Your task to perform on an android device: uninstall "Facebook Messenger" Image 0: 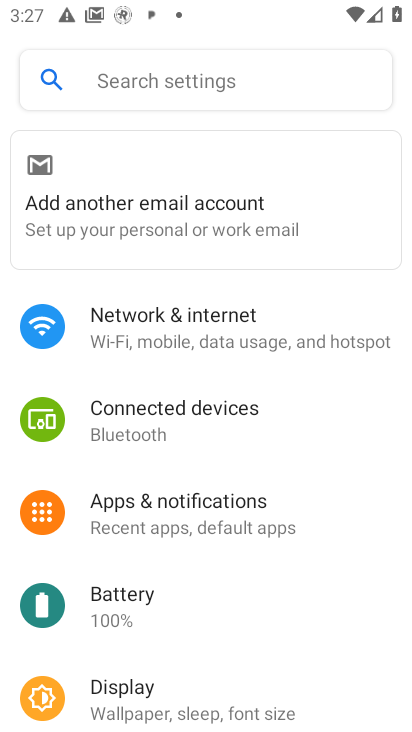
Step 0: press home button
Your task to perform on an android device: uninstall "Facebook Messenger" Image 1: 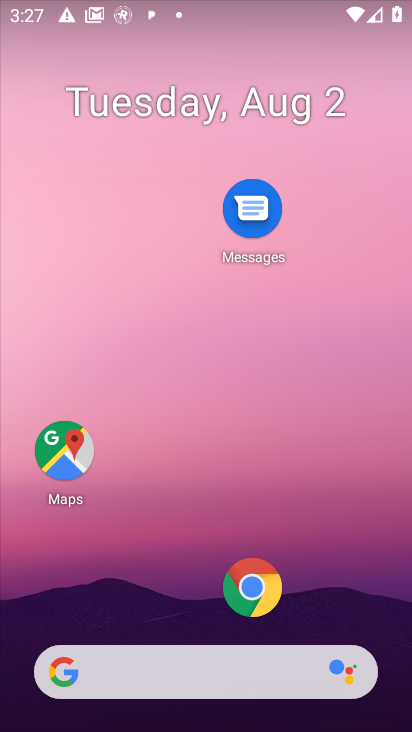
Step 1: drag from (175, 513) to (153, 203)
Your task to perform on an android device: uninstall "Facebook Messenger" Image 2: 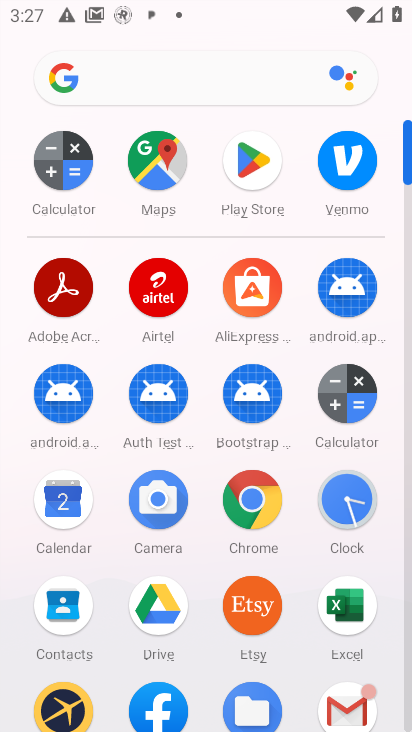
Step 2: click (269, 149)
Your task to perform on an android device: uninstall "Facebook Messenger" Image 3: 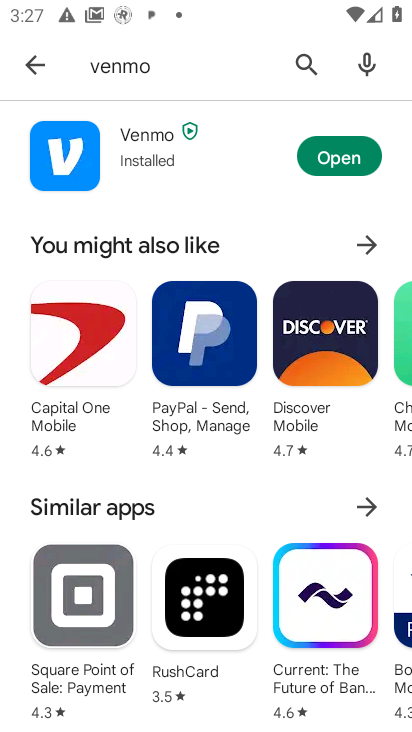
Step 3: click (303, 67)
Your task to perform on an android device: uninstall "Facebook Messenger" Image 4: 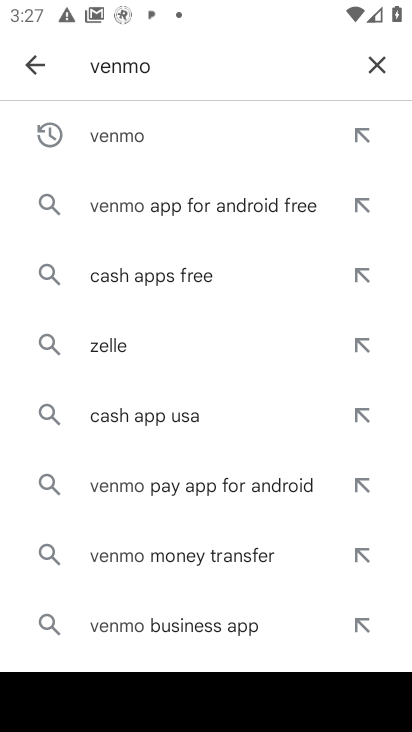
Step 4: click (391, 65)
Your task to perform on an android device: uninstall "Facebook Messenger" Image 5: 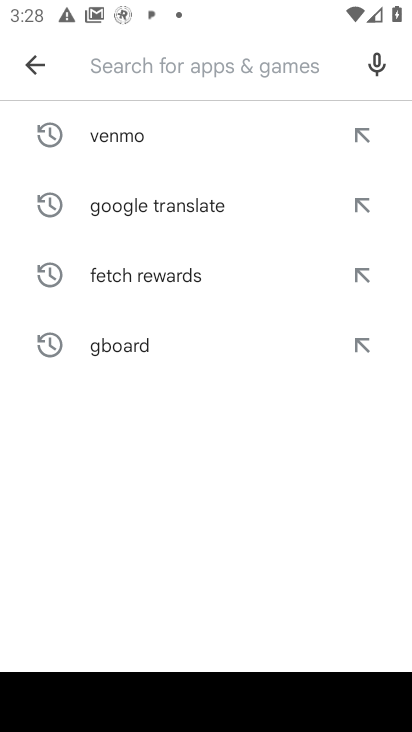
Step 5: type "Facebook Messenge"
Your task to perform on an android device: uninstall "Facebook Messenger" Image 6: 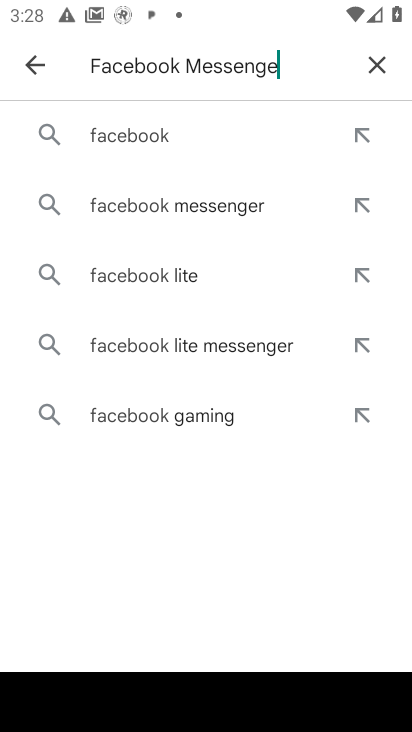
Step 6: type ""
Your task to perform on an android device: uninstall "Facebook Messenger" Image 7: 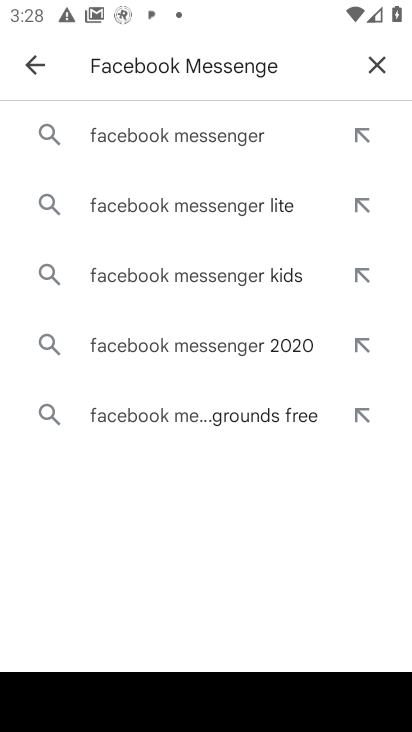
Step 7: click (234, 140)
Your task to perform on an android device: uninstall "Facebook Messenger" Image 8: 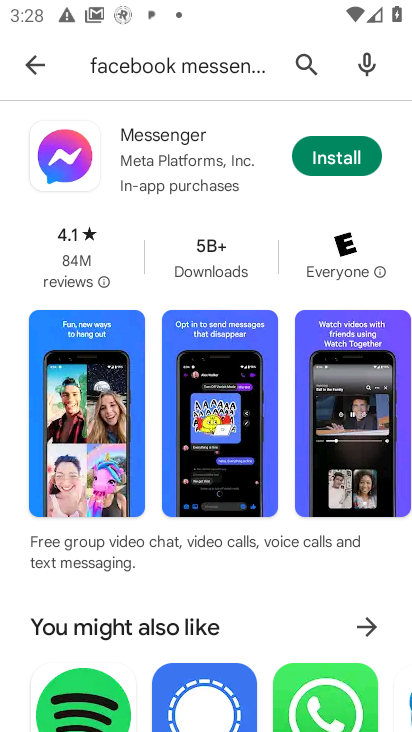
Step 8: task complete